Your task to perform on an android device: Go to Google maps Image 0: 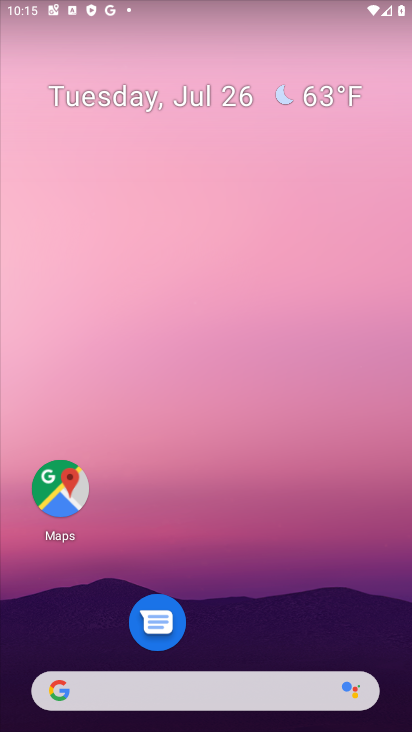
Step 0: drag from (264, 530) to (190, 81)
Your task to perform on an android device: Go to Google maps Image 1: 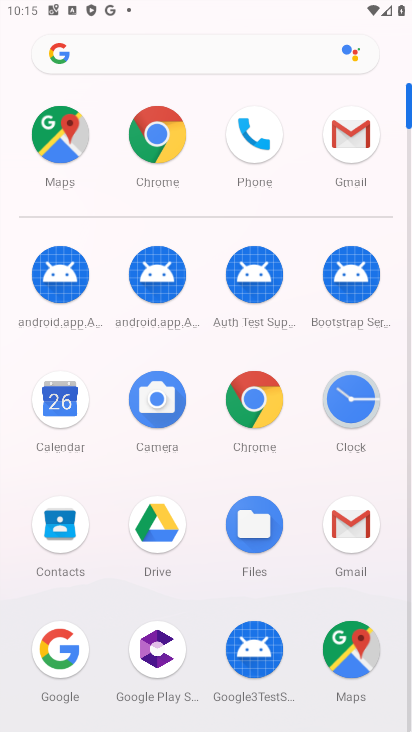
Step 1: click (353, 647)
Your task to perform on an android device: Go to Google maps Image 2: 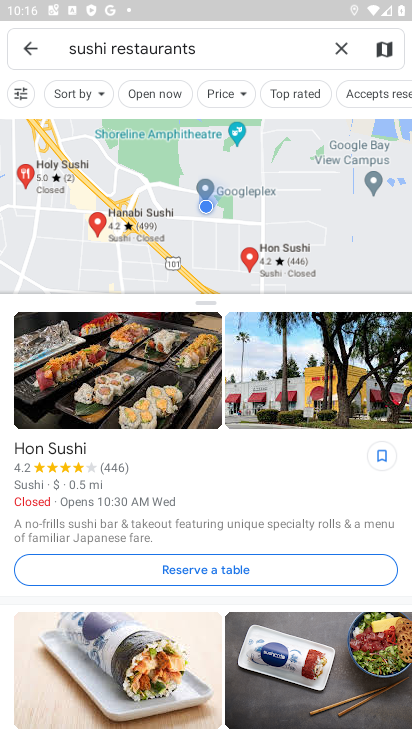
Step 2: task complete